Your task to perform on an android device: Open sound settings Image 0: 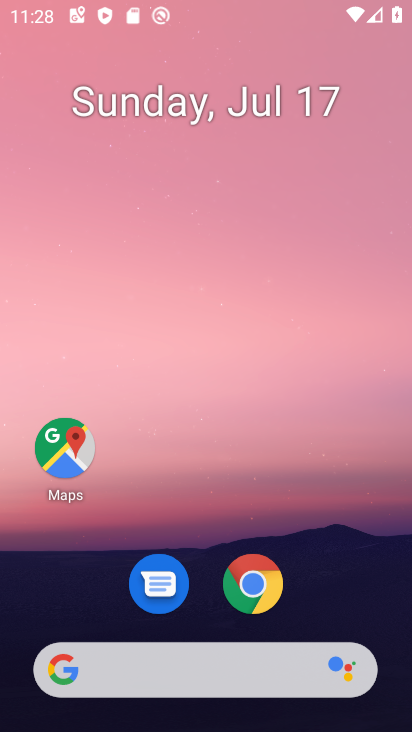
Step 0: drag from (394, 382) to (320, 1)
Your task to perform on an android device: Open sound settings Image 1: 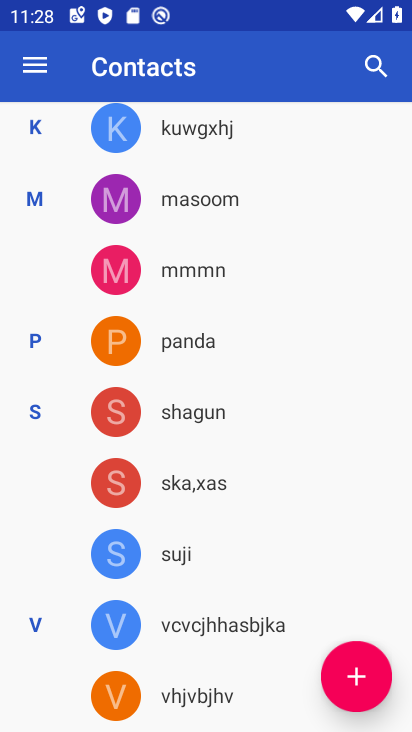
Step 1: press home button
Your task to perform on an android device: Open sound settings Image 2: 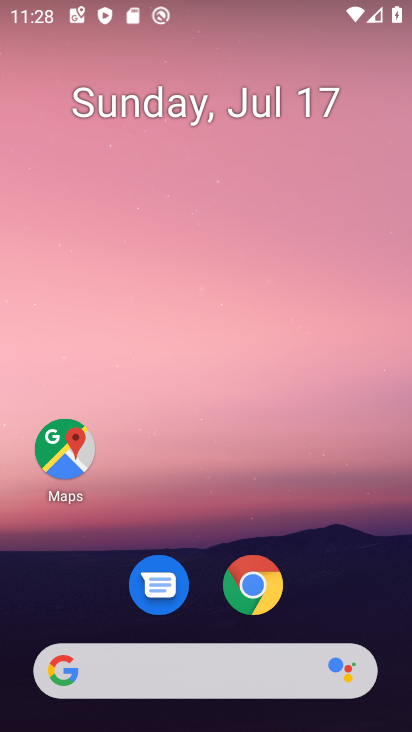
Step 2: drag from (290, 543) to (266, 50)
Your task to perform on an android device: Open sound settings Image 3: 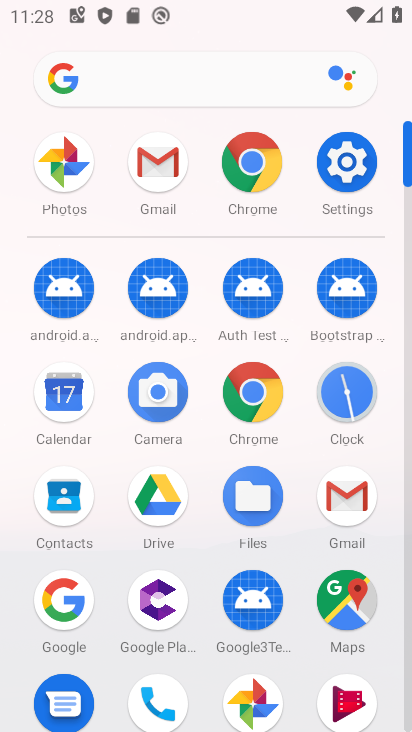
Step 3: click (356, 181)
Your task to perform on an android device: Open sound settings Image 4: 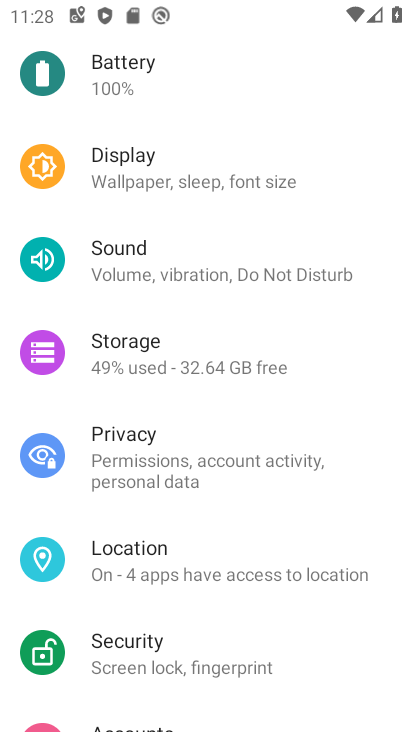
Step 4: click (278, 260)
Your task to perform on an android device: Open sound settings Image 5: 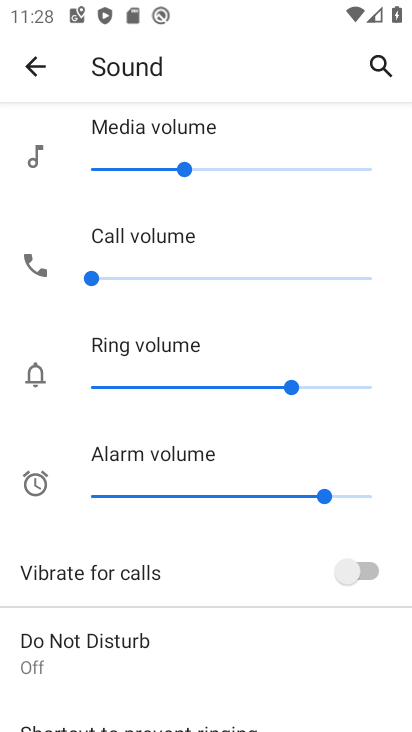
Step 5: task complete